Your task to perform on an android device: Is it going to rain this weekend? Image 0: 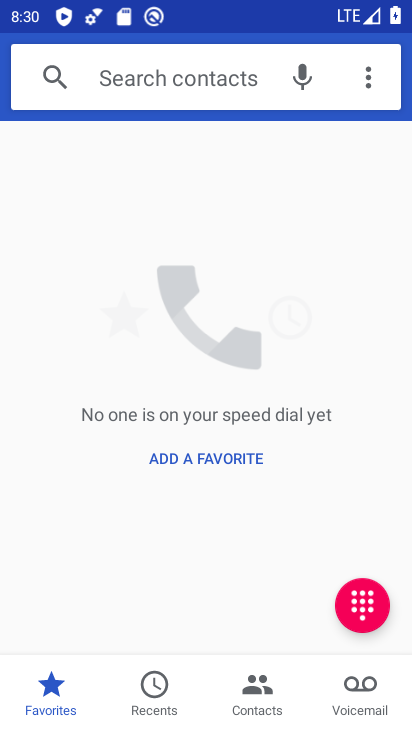
Step 0: press home button
Your task to perform on an android device: Is it going to rain this weekend? Image 1: 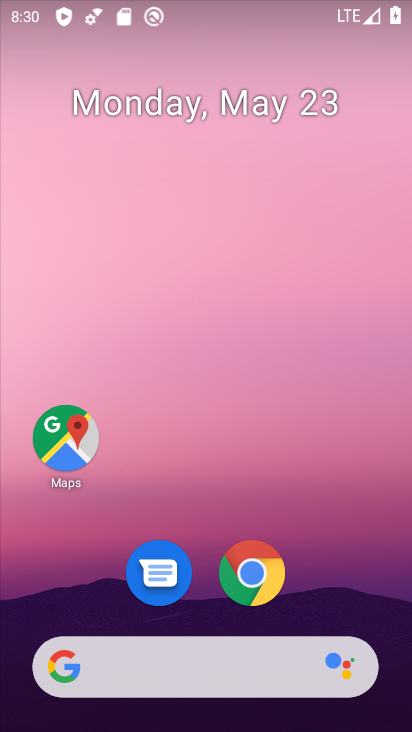
Step 1: click (116, 655)
Your task to perform on an android device: Is it going to rain this weekend? Image 2: 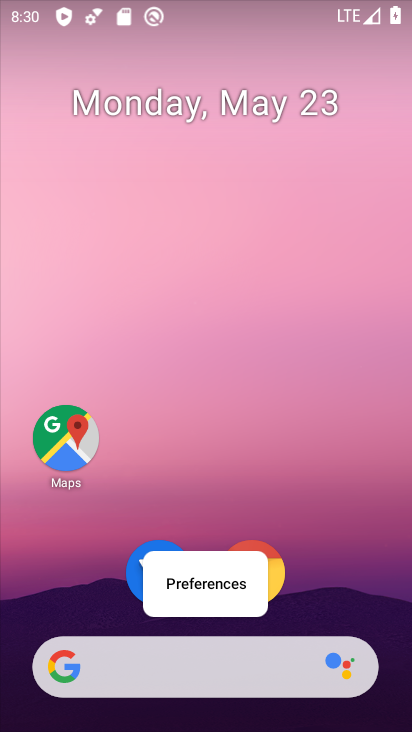
Step 2: click (127, 683)
Your task to perform on an android device: Is it going to rain this weekend? Image 3: 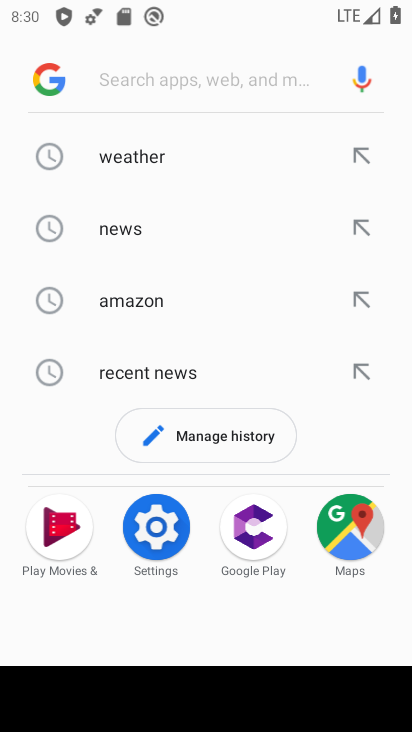
Step 3: click (117, 153)
Your task to perform on an android device: Is it going to rain this weekend? Image 4: 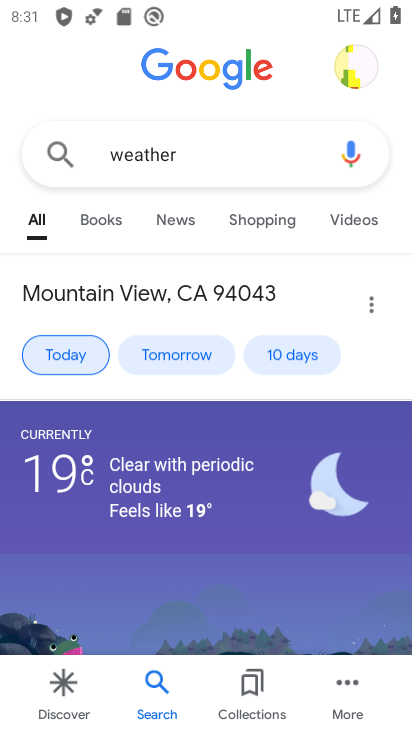
Step 4: click (68, 351)
Your task to perform on an android device: Is it going to rain this weekend? Image 5: 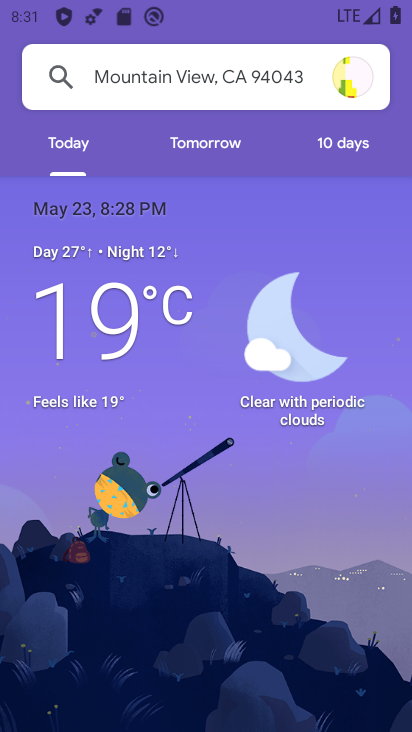
Step 5: click (332, 140)
Your task to perform on an android device: Is it going to rain this weekend? Image 6: 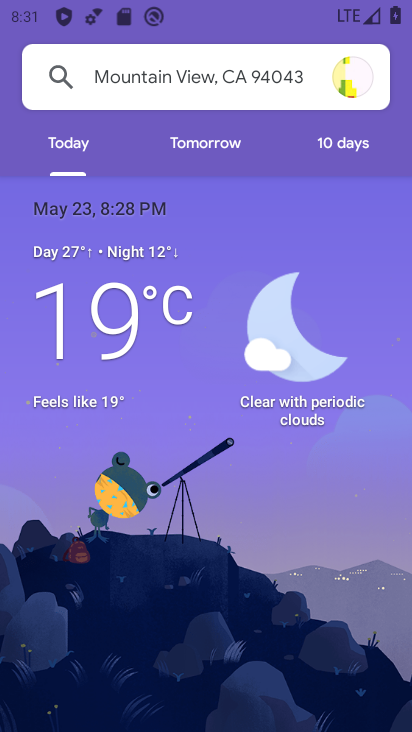
Step 6: click (332, 138)
Your task to perform on an android device: Is it going to rain this weekend? Image 7: 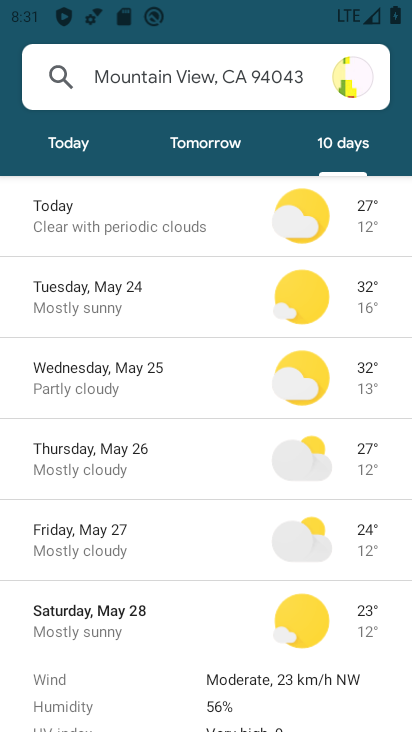
Step 7: task complete